Your task to perform on an android device: empty trash in google photos Image 0: 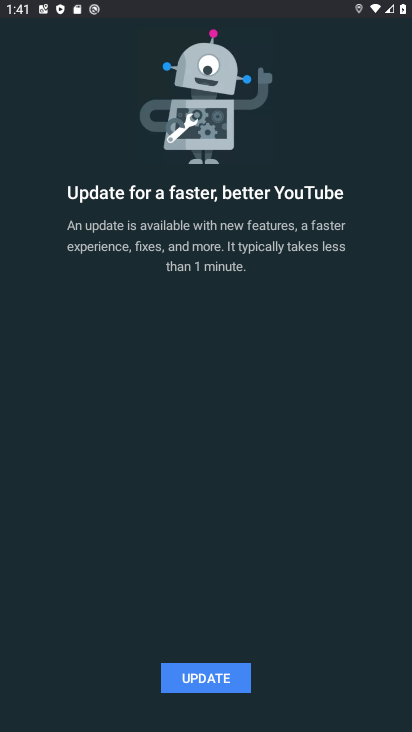
Step 0: press home button
Your task to perform on an android device: empty trash in google photos Image 1: 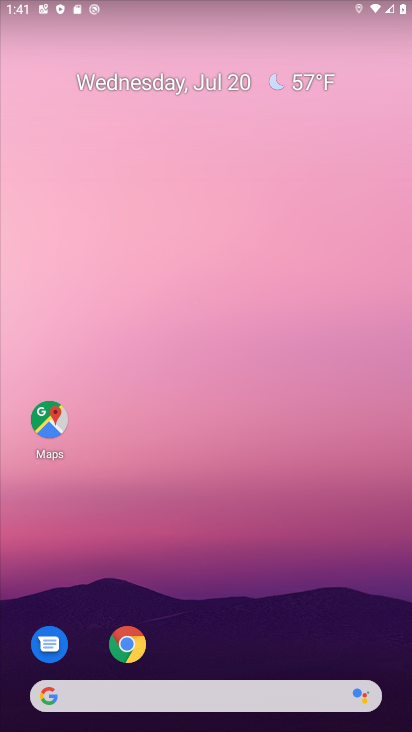
Step 1: drag from (214, 666) to (335, 20)
Your task to perform on an android device: empty trash in google photos Image 2: 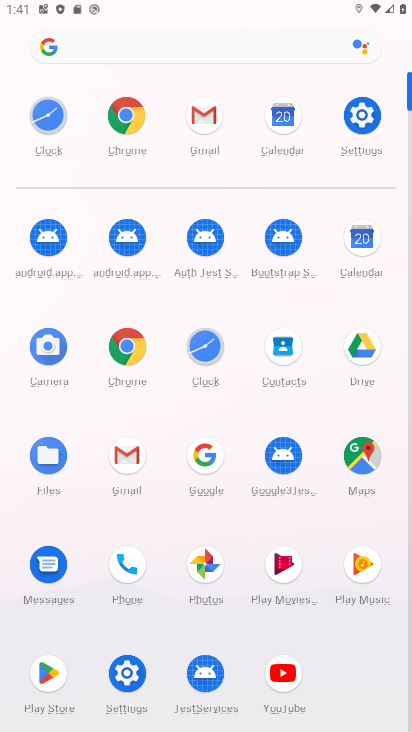
Step 2: click (206, 569)
Your task to perform on an android device: empty trash in google photos Image 3: 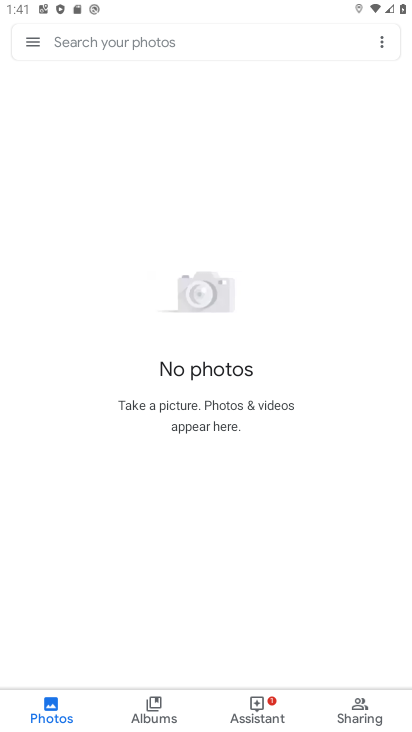
Step 3: click (25, 40)
Your task to perform on an android device: empty trash in google photos Image 4: 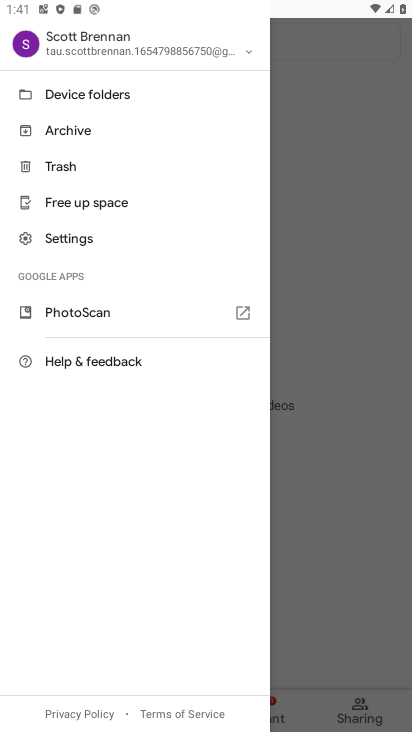
Step 4: click (50, 163)
Your task to perform on an android device: empty trash in google photos Image 5: 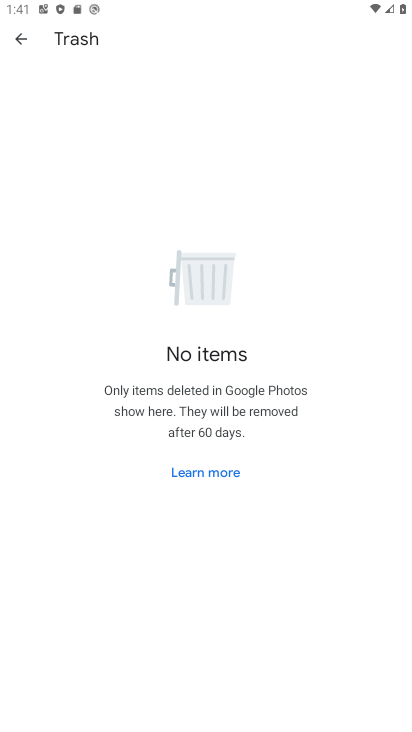
Step 5: task complete